Your task to perform on an android device: check storage Image 0: 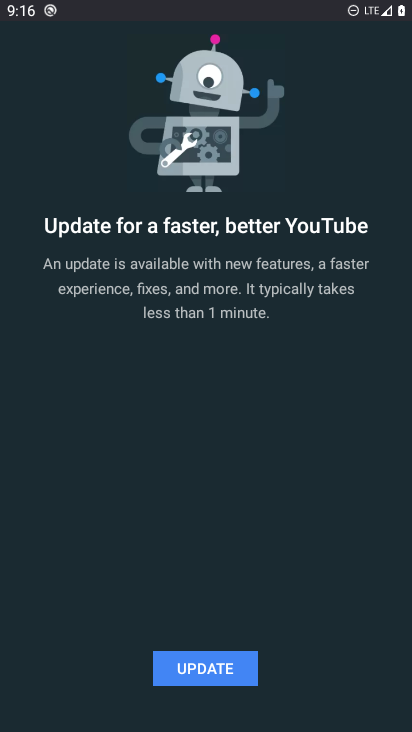
Step 0: press home button
Your task to perform on an android device: check storage Image 1: 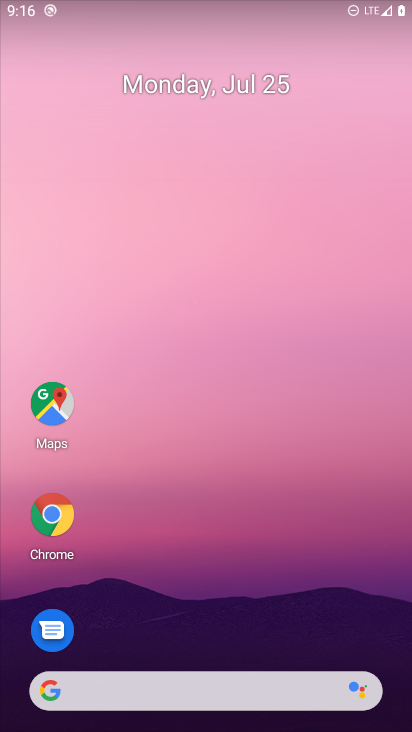
Step 1: drag from (24, 696) to (307, 267)
Your task to perform on an android device: check storage Image 2: 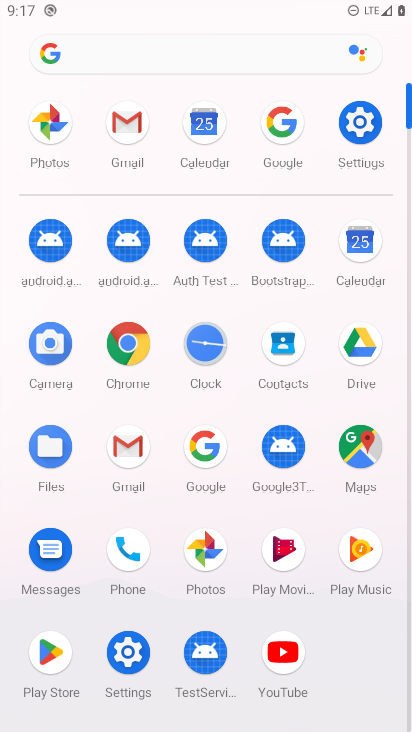
Step 2: click (128, 653)
Your task to perform on an android device: check storage Image 3: 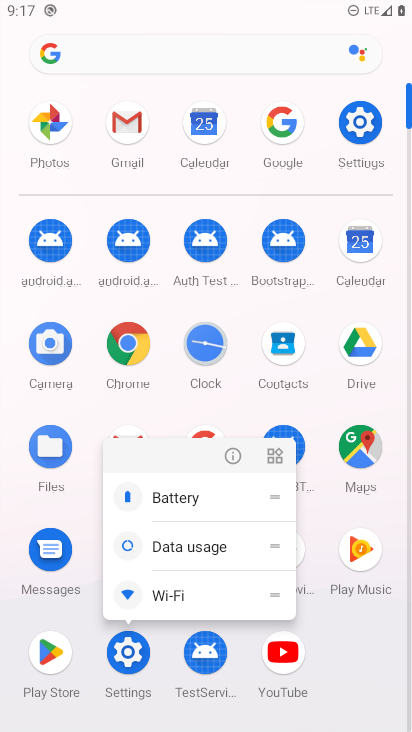
Step 3: click (121, 654)
Your task to perform on an android device: check storage Image 4: 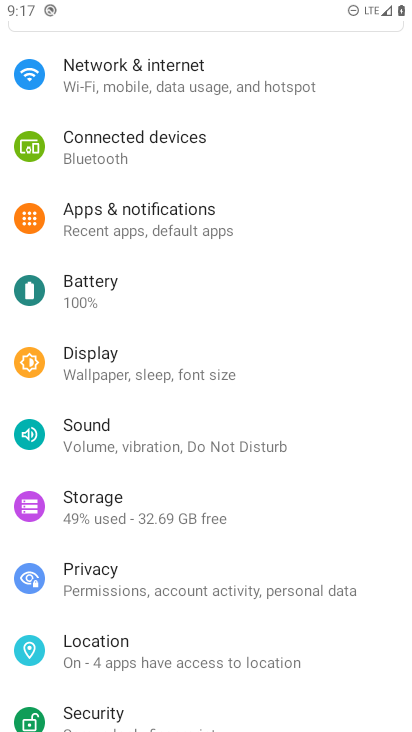
Step 4: click (103, 513)
Your task to perform on an android device: check storage Image 5: 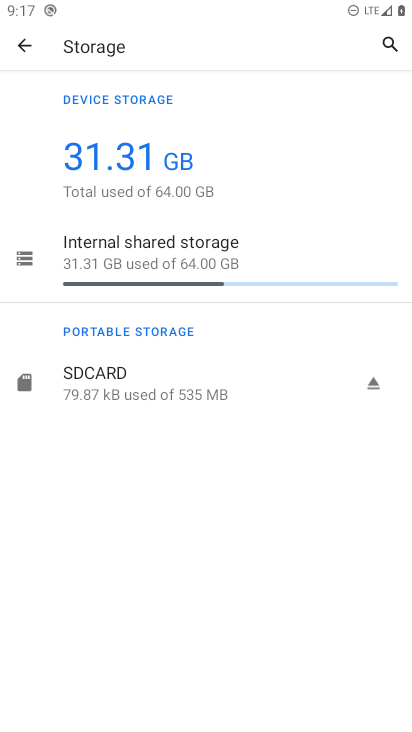
Step 5: task complete